Your task to perform on an android device: turn off picture-in-picture Image 0: 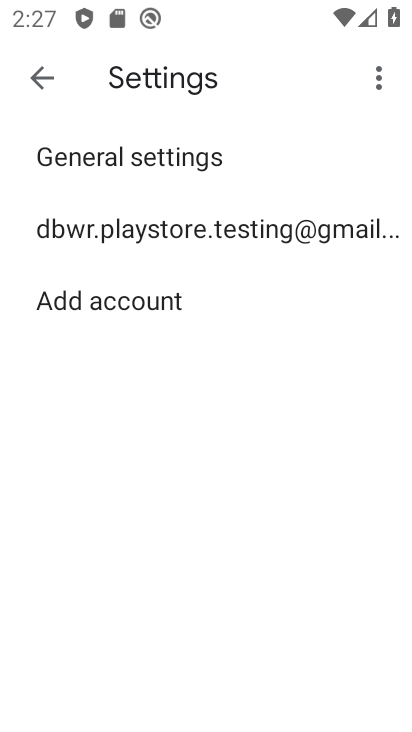
Step 0: press home button
Your task to perform on an android device: turn off picture-in-picture Image 1: 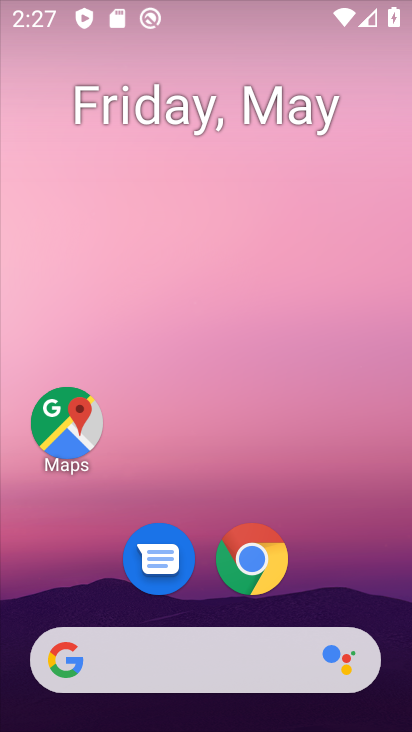
Step 1: drag from (360, 529) to (143, 42)
Your task to perform on an android device: turn off picture-in-picture Image 2: 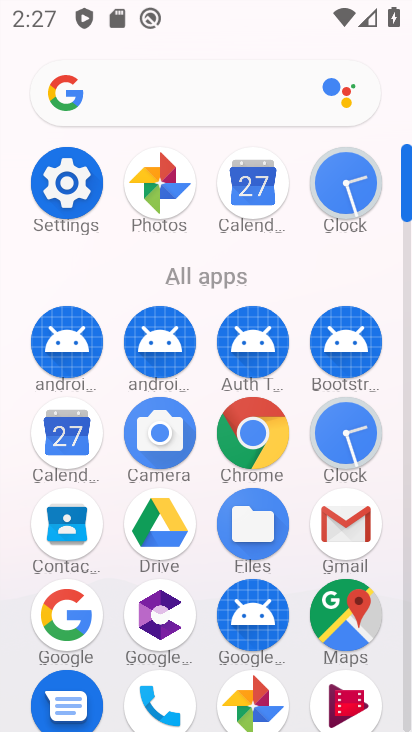
Step 2: click (70, 201)
Your task to perform on an android device: turn off picture-in-picture Image 3: 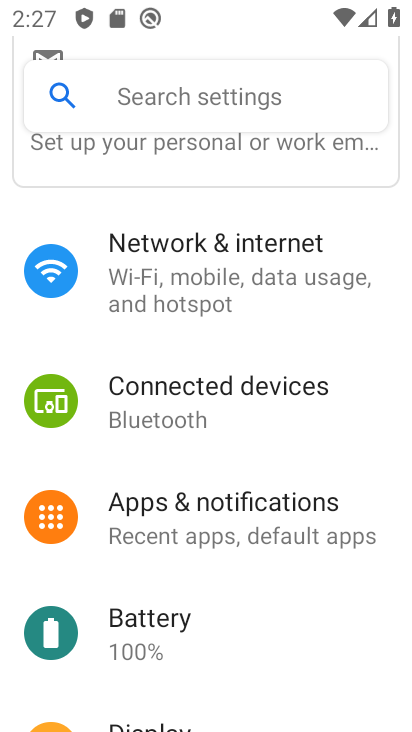
Step 3: drag from (265, 623) to (248, 289)
Your task to perform on an android device: turn off picture-in-picture Image 4: 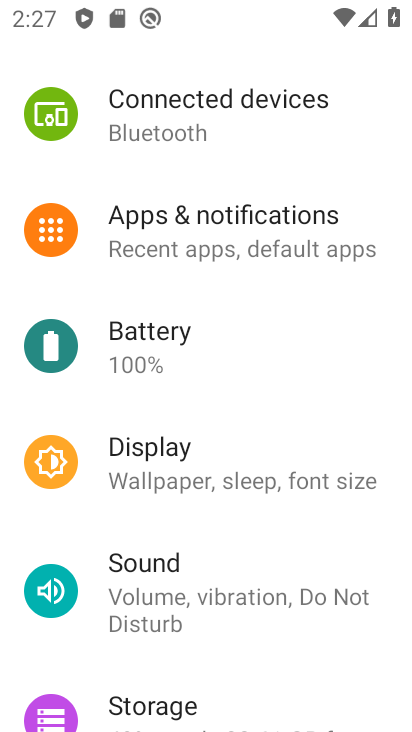
Step 4: click (225, 234)
Your task to perform on an android device: turn off picture-in-picture Image 5: 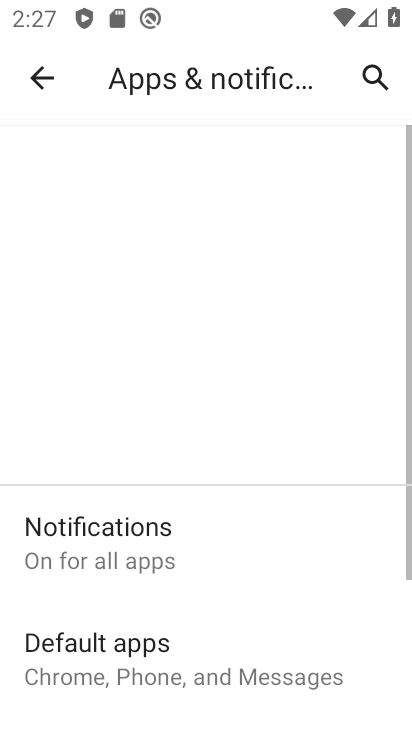
Step 5: drag from (255, 686) to (218, 82)
Your task to perform on an android device: turn off picture-in-picture Image 6: 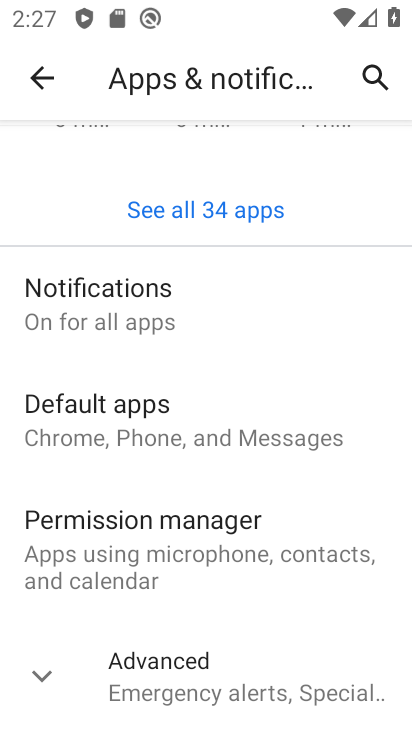
Step 6: click (216, 684)
Your task to perform on an android device: turn off picture-in-picture Image 7: 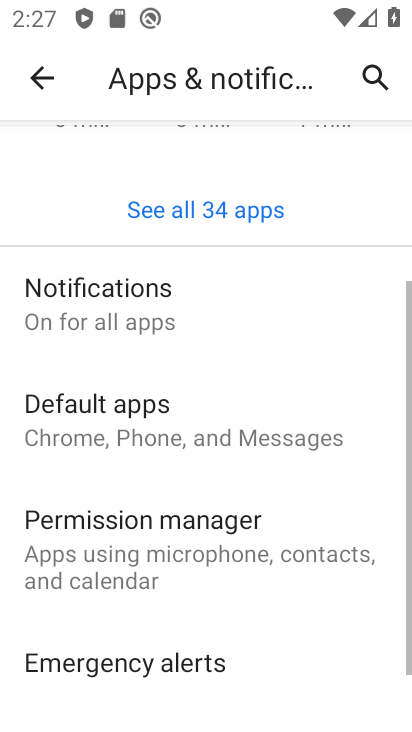
Step 7: drag from (262, 618) to (233, 207)
Your task to perform on an android device: turn off picture-in-picture Image 8: 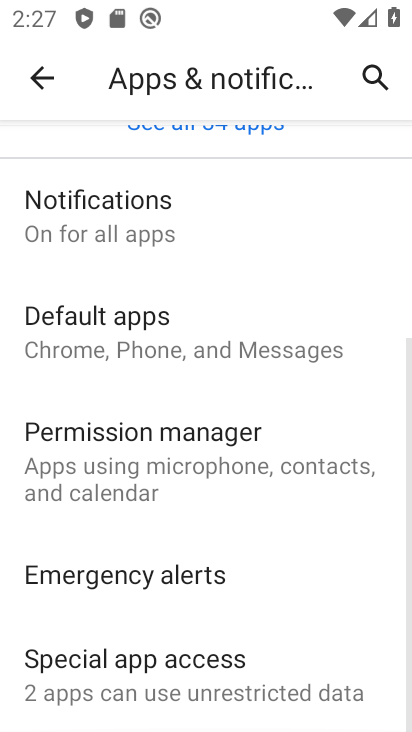
Step 8: click (171, 667)
Your task to perform on an android device: turn off picture-in-picture Image 9: 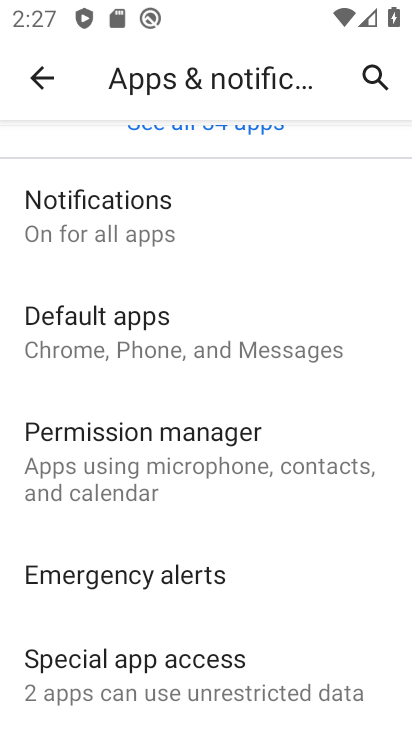
Step 9: drag from (223, 556) to (194, 177)
Your task to perform on an android device: turn off picture-in-picture Image 10: 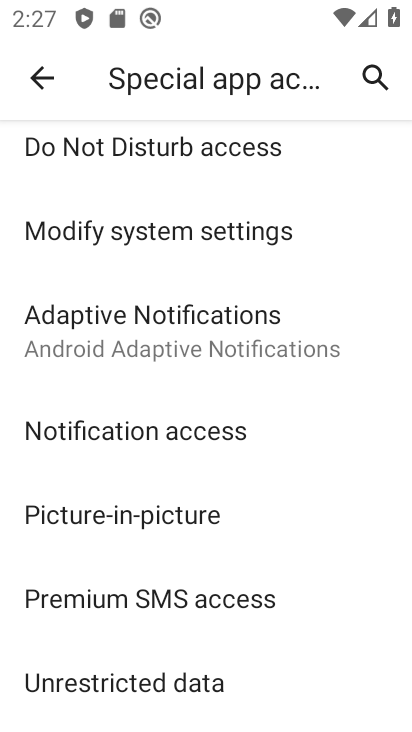
Step 10: drag from (218, 656) to (194, 250)
Your task to perform on an android device: turn off picture-in-picture Image 11: 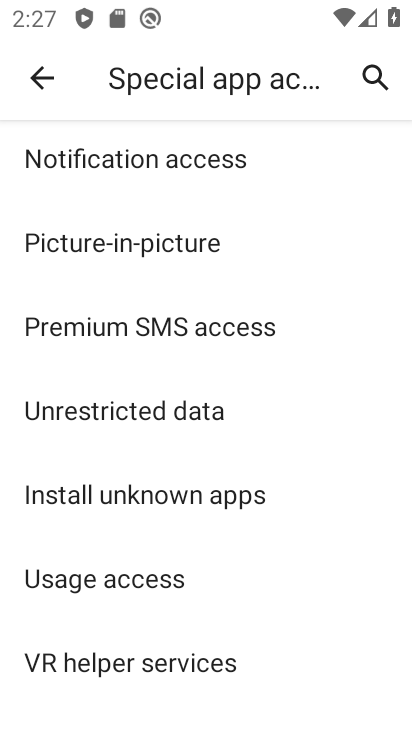
Step 11: click (139, 256)
Your task to perform on an android device: turn off picture-in-picture Image 12: 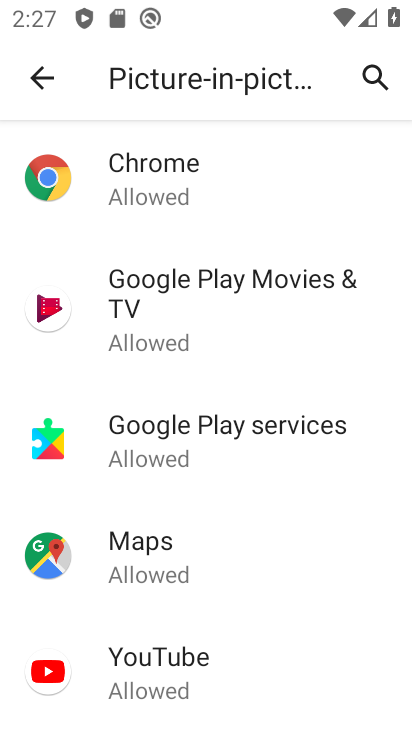
Step 12: drag from (279, 592) to (204, 143)
Your task to perform on an android device: turn off picture-in-picture Image 13: 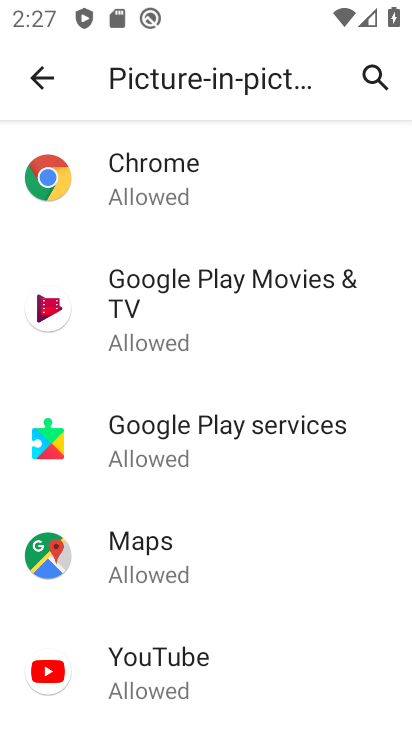
Step 13: click (173, 568)
Your task to perform on an android device: turn off picture-in-picture Image 14: 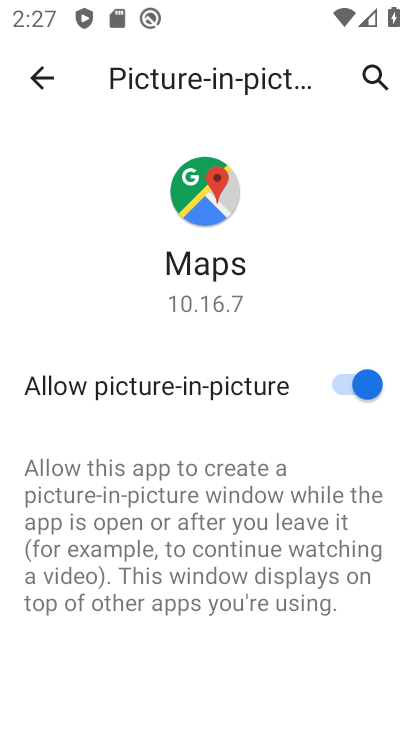
Step 14: click (363, 369)
Your task to perform on an android device: turn off picture-in-picture Image 15: 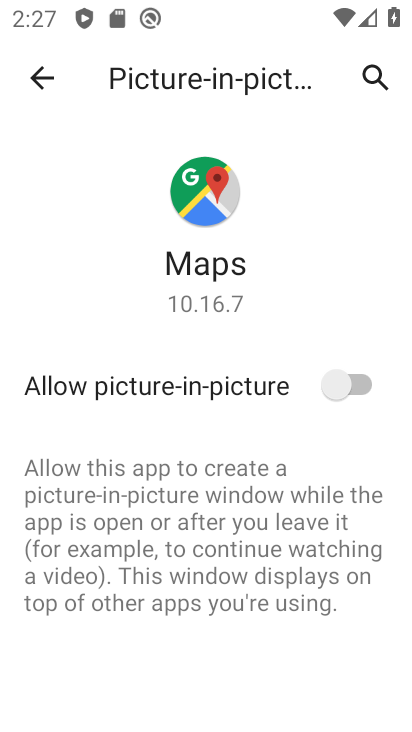
Step 15: task complete